Your task to perform on an android device: Open CNN.com Image 0: 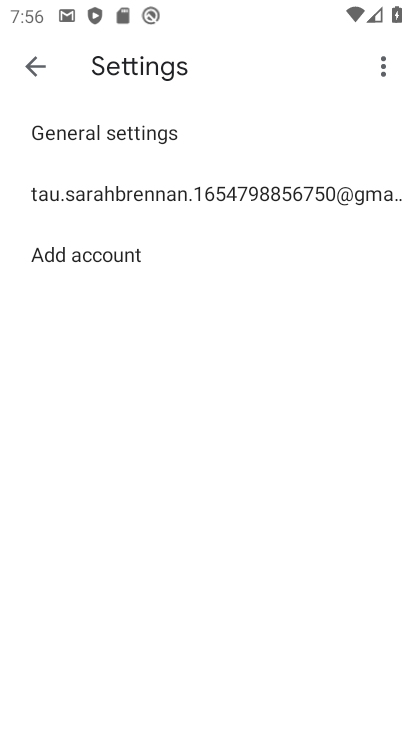
Step 0: press home button
Your task to perform on an android device: Open CNN.com Image 1: 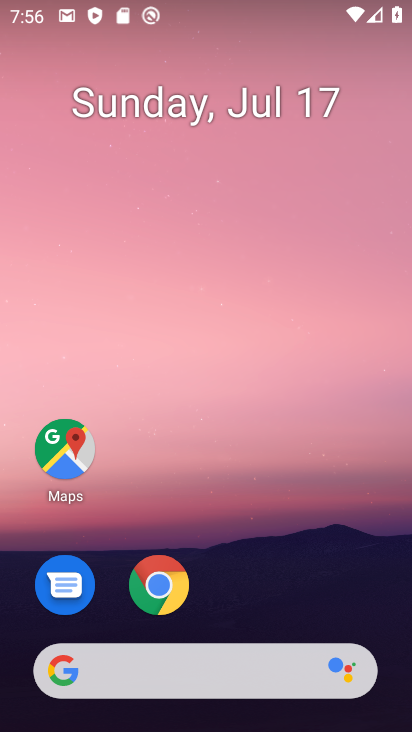
Step 1: click (159, 587)
Your task to perform on an android device: Open CNN.com Image 2: 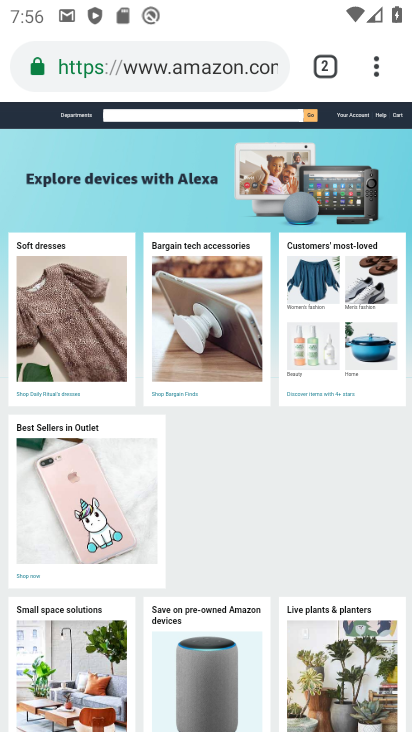
Step 2: drag from (376, 71) to (280, 138)
Your task to perform on an android device: Open CNN.com Image 3: 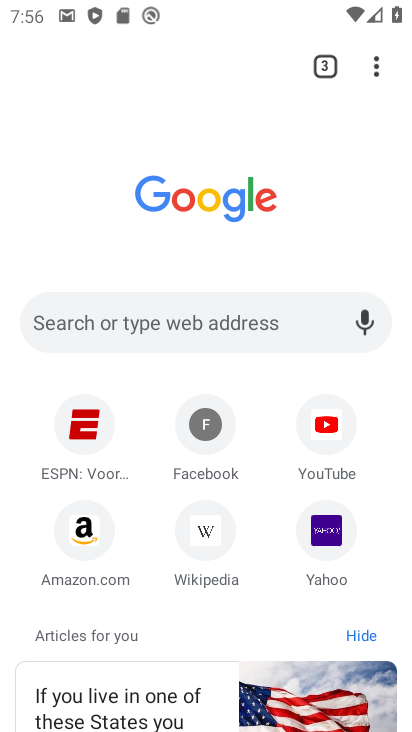
Step 3: click (148, 313)
Your task to perform on an android device: Open CNN.com Image 4: 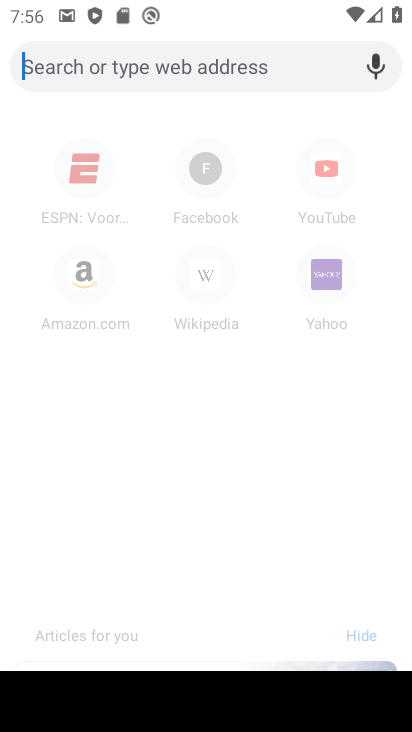
Step 4: type "cnn.com"
Your task to perform on an android device: Open CNN.com Image 5: 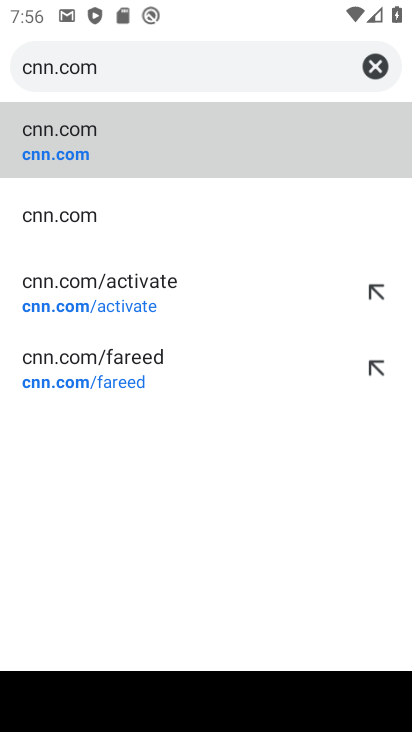
Step 5: click (115, 133)
Your task to perform on an android device: Open CNN.com Image 6: 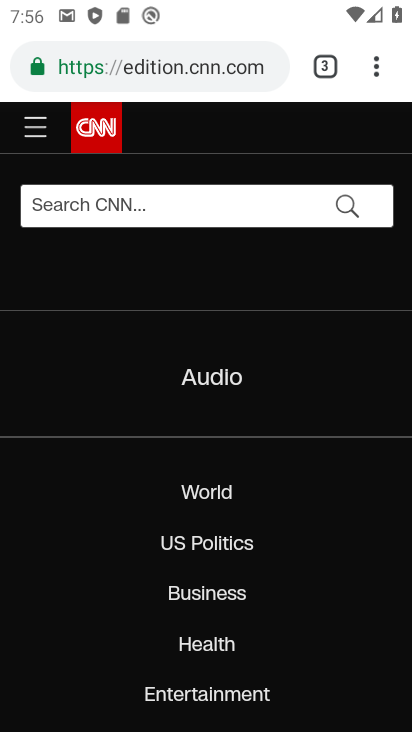
Step 6: task complete